Your task to perform on an android device: toggle pop-ups in chrome Image 0: 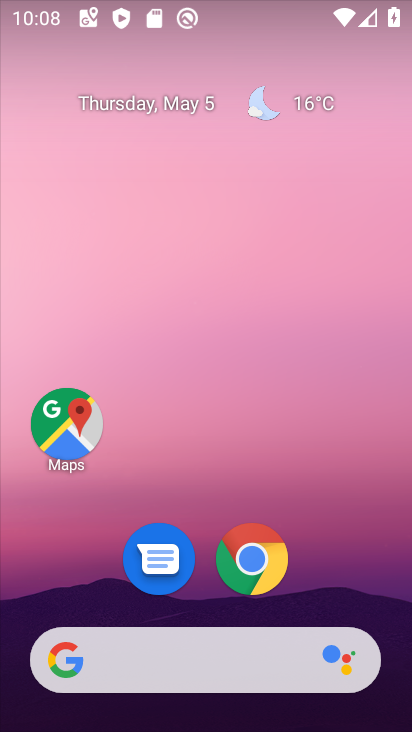
Step 0: click (251, 556)
Your task to perform on an android device: toggle pop-ups in chrome Image 1: 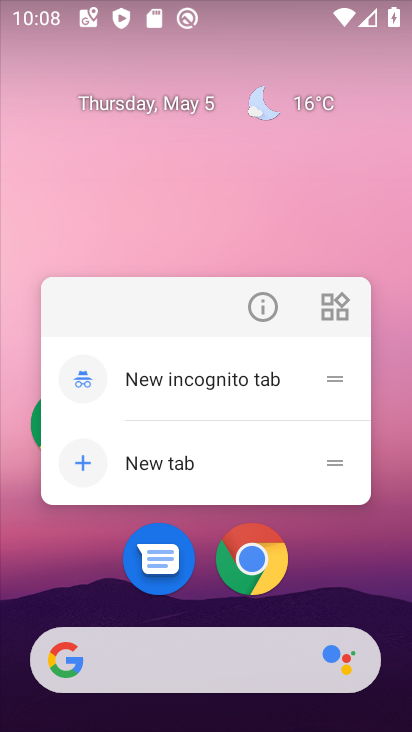
Step 1: click (251, 579)
Your task to perform on an android device: toggle pop-ups in chrome Image 2: 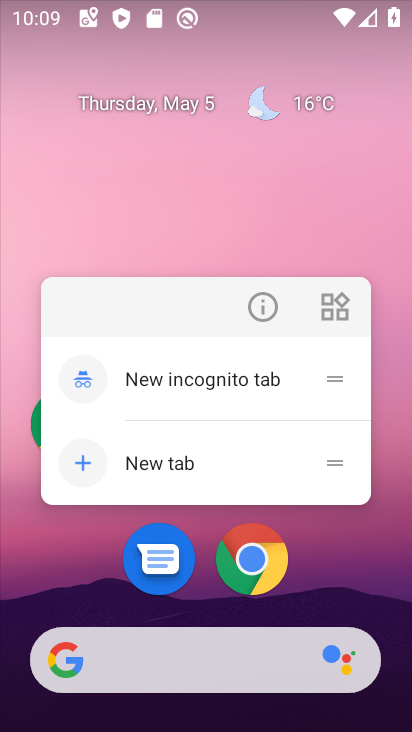
Step 2: click (251, 579)
Your task to perform on an android device: toggle pop-ups in chrome Image 3: 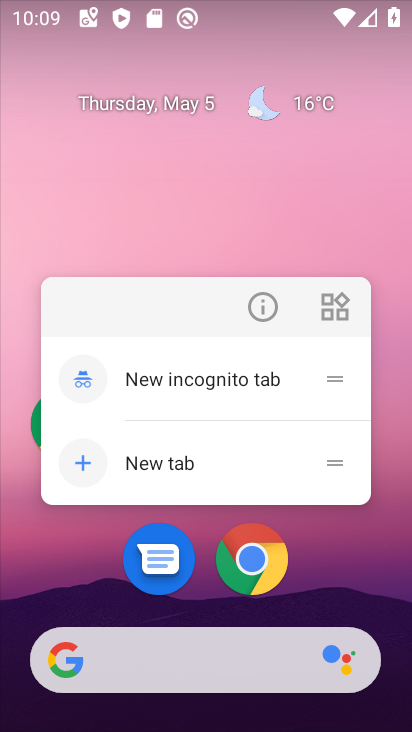
Step 3: click (250, 578)
Your task to perform on an android device: toggle pop-ups in chrome Image 4: 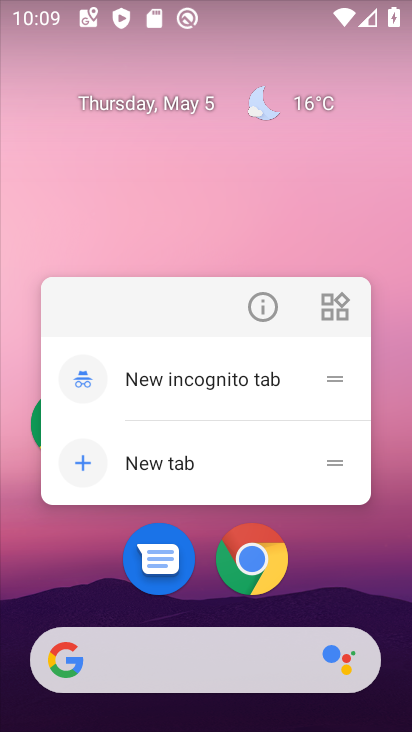
Step 4: click (250, 578)
Your task to perform on an android device: toggle pop-ups in chrome Image 5: 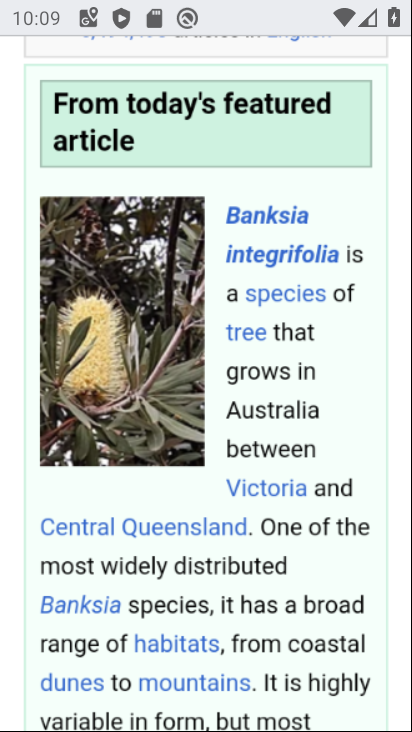
Step 5: click (250, 578)
Your task to perform on an android device: toggle pop-ups in chrome Image 6: 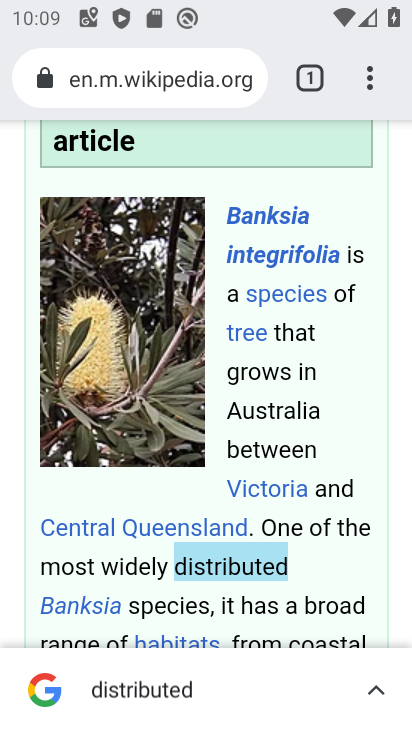
Step 6: click (375, 94)
Your task to perform on an android device: toggle pop-ups in chrome Image 7: 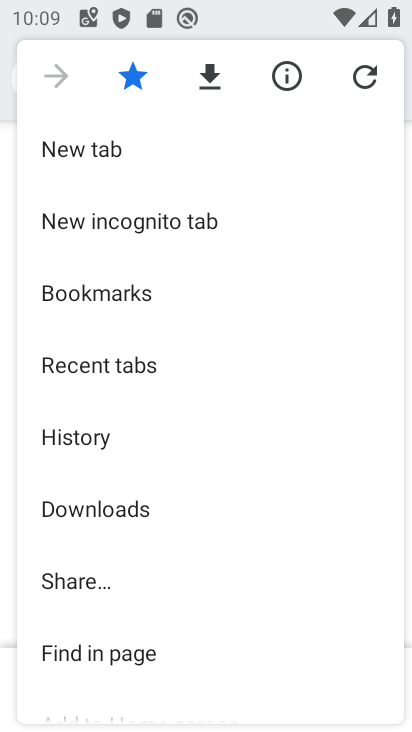
Step 7: drag from (187, 616) to (163, 236)
Your task to perform on an android device: toggle pop-ups in chrome Image 8: 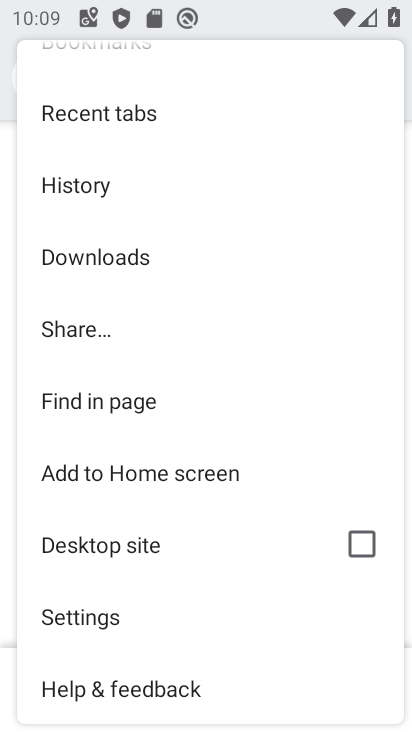
Step 8: click (110, 615)
Your task to perform on an android device: toggle pop-ups in chrome Image 9: 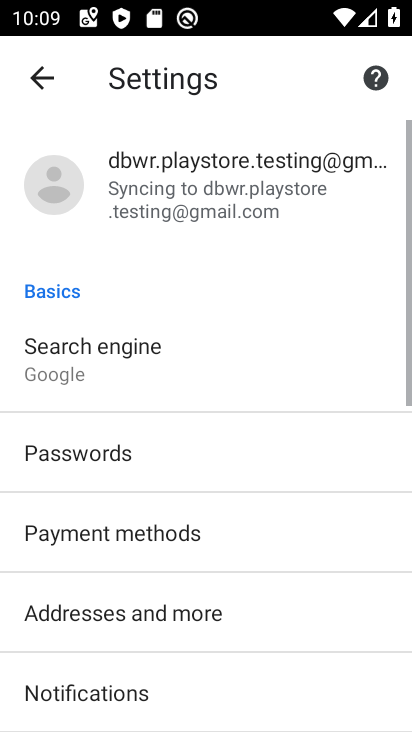
Step 9: drag from (235, 668) to (196, 144)
Your task to perform on an android device: toggle pop-ups in chrome Image 10: 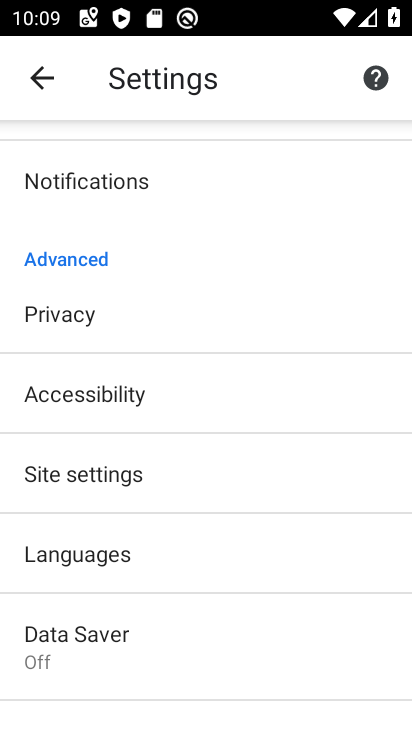
Step 10: click (151, 473)
Your task to perform on an android device: toggle pop-ups in chrome Image 11: 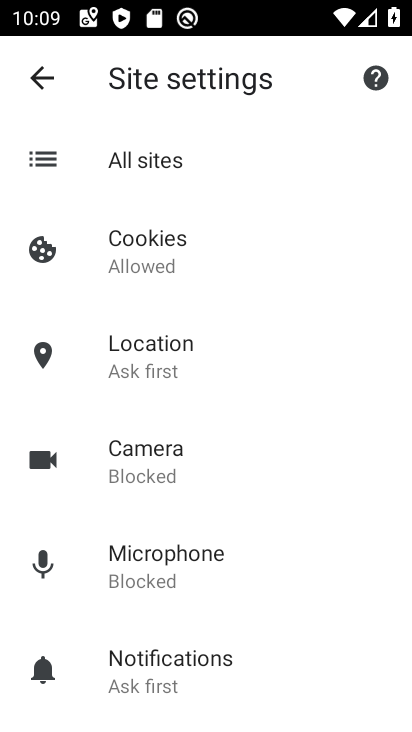
Step 11: drag from (166, 651) to (215, 182)
Your task to perform on an android device: toggle pop-ups in chrome Image 12: 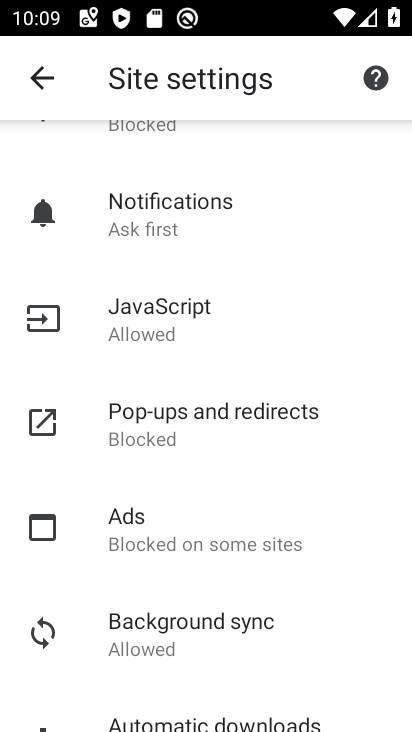
Step 12: click (161, 441)
Your task to perform on an android device: toggle pop-ups in chrome Image 13: 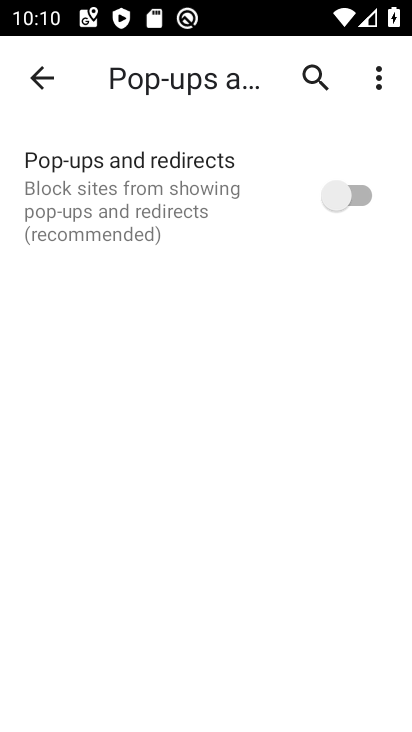
Step 13: click (363, 193)
Your task to perform on an android device: toggle pop-ups in chrome Image 14: 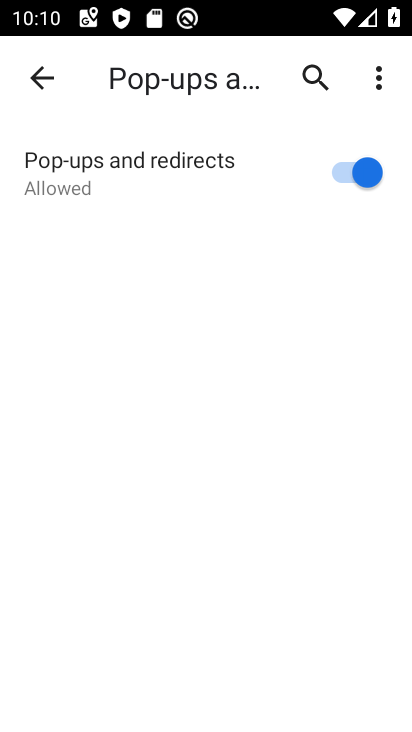
Step 14: task complete